Your task to perform on an android device: Show me recent news Image 0: 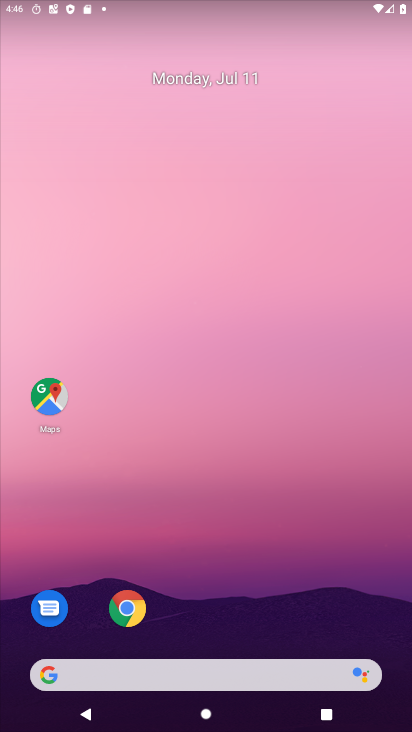
Step 0: drag from (264, 686) to (213, 50)
Your task to perform on an android device: Show me recent news Image 1: 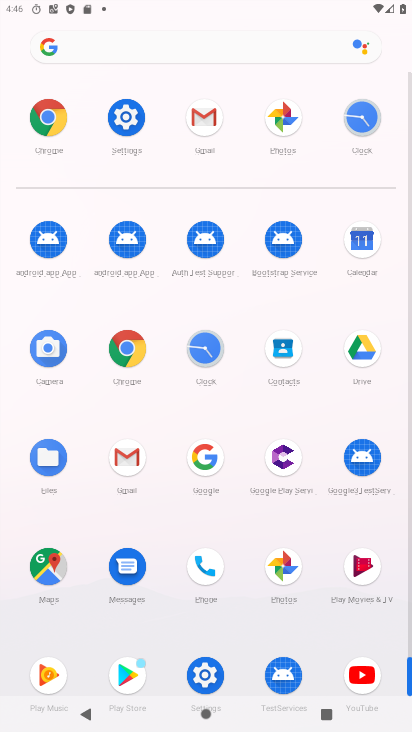
Step 1: click (50, 126)
Your task to perform on an android device: Show me recent news Image 2: 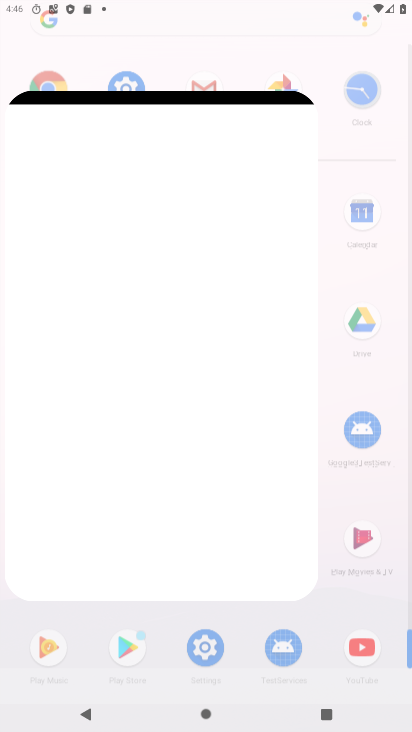
Step 2: click (58, 119)
Your task to perform on an android device: Show me recent news Image 3: 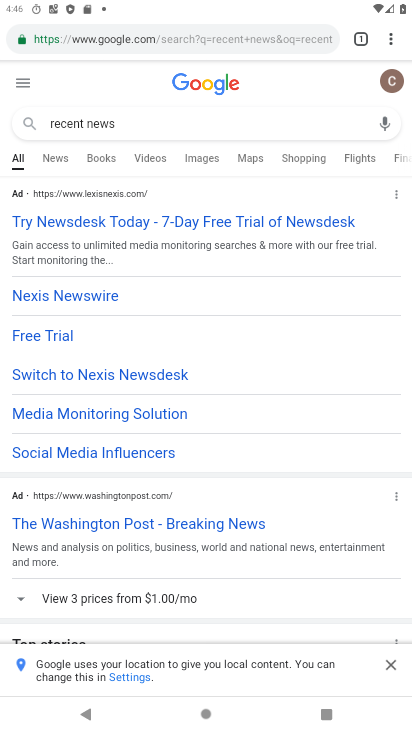
Step 3: click (316, 39)
Your task to perform on an android device: Show me recent news Image 4: 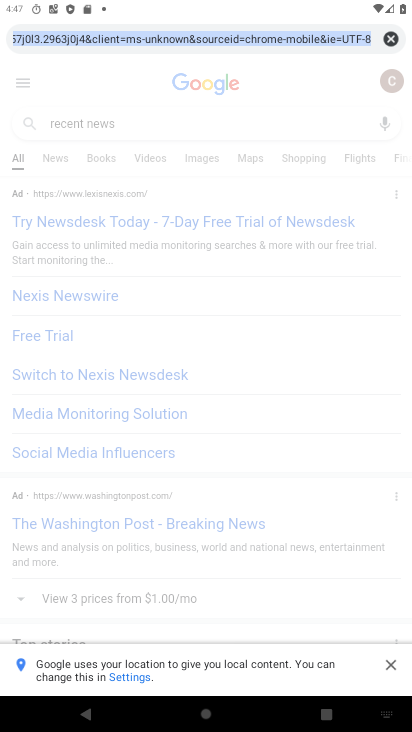
Step 4: task complete